Your task to perform on an android device: turn off improve location accuracy Image 0: 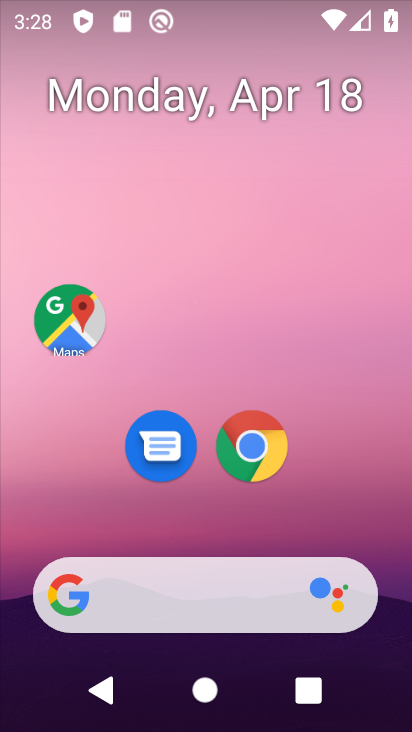
Step 0: drag from (325, 543) to (337, 152)
Your task to perform on an android device: turn off improve location accuracy Image 1: 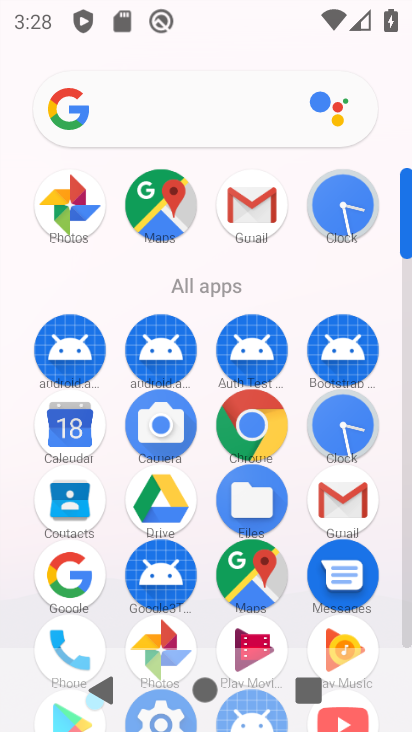
Step 1: drag from (344, 505) to (356, 112)
Your task to perform on an android device: turn off improve location accuracy Image 2: 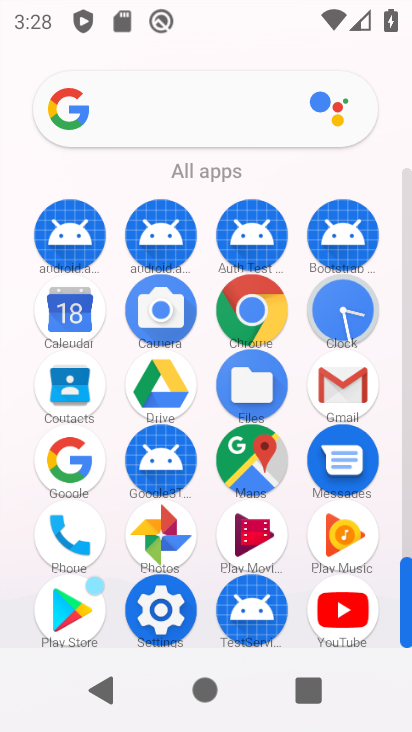
Step 2: click (169, 585)
Your task to perform on an android device: turn off improve location accuracy Image 3: 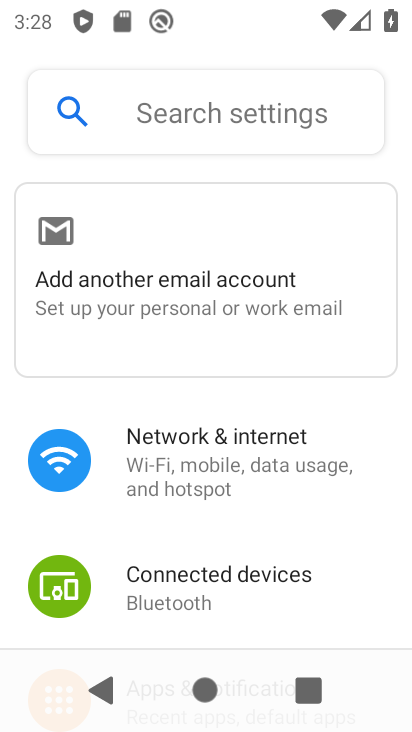
Step 3: drag from (272, 600) to (354, 141)
Your task to perform on an android device: turn off improve location accuracy Image 4: 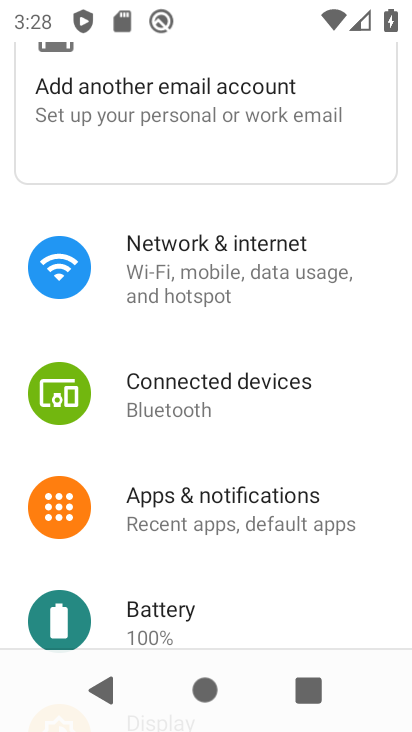
Step 4: drag from (368, 609) to (409, 178)
Your task to perform on an android device: turn off improve location accuracy Image 5: 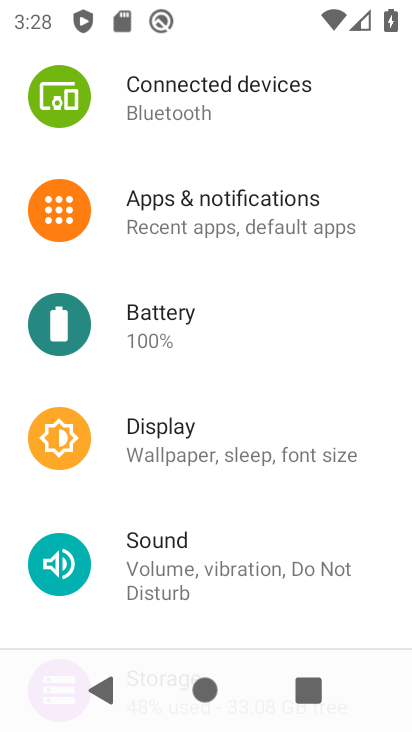
Step 5: drag from (355, 622) to (369, 236)
Your task to perform on an android device: turn off improve location accuracy Image 6: 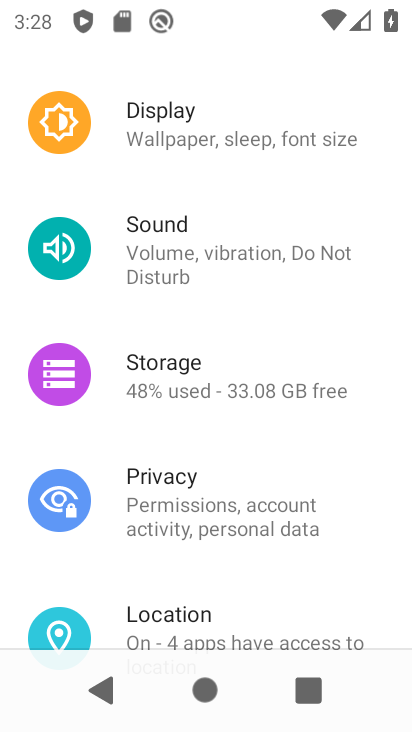
Step 6: click (272, 610)
Your task to perform on an android device: turn off improve location accuracy Image 7: 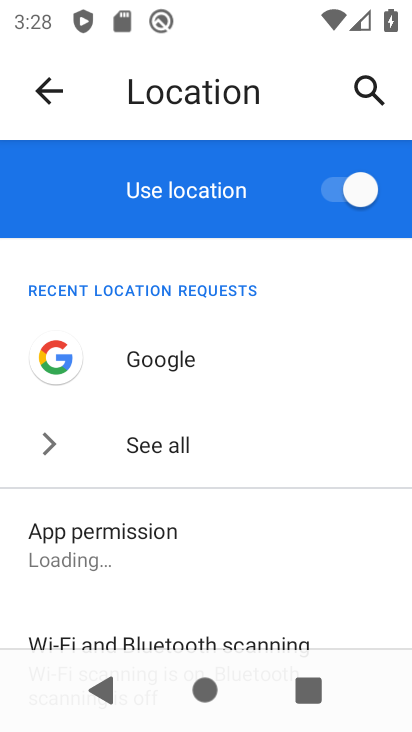
Step 7: drag from (358, 543) to (388, 103)
Your task to perform on an android device: turn off improve location accuracy Image 8: 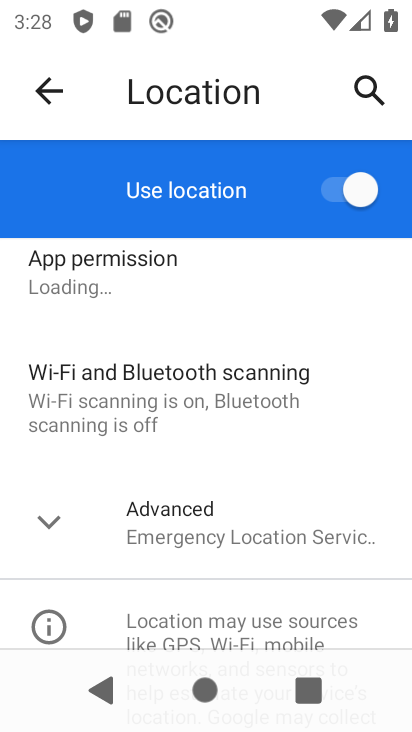
Step 8: click (285, 485)
Your task to perform on an android device: turn off improve location accuracy Image 9: 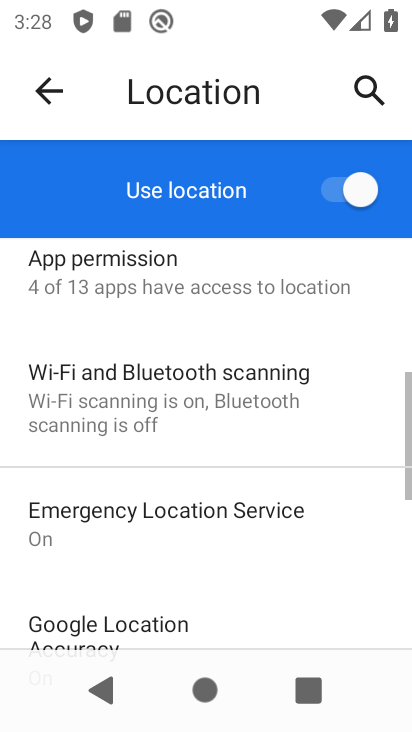
Step 9: drag from (354, 596) to (390, 269)
Your task to perform on an android device: turn off improve location accuracy Image 10: 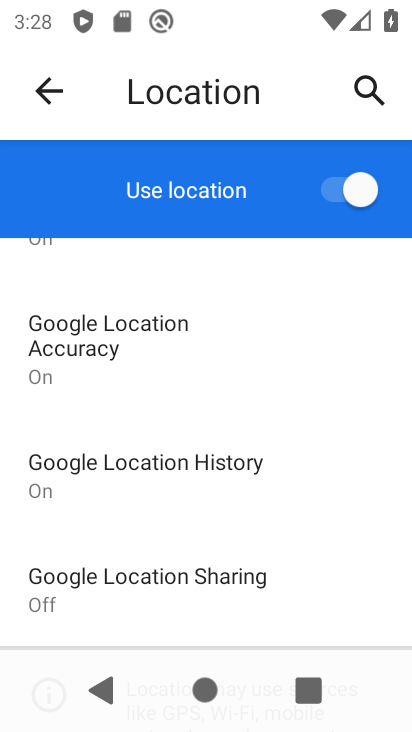
Step 10: click (205, 336)
Your task to perform on an android device: turn off improve location accuracy Image 11: 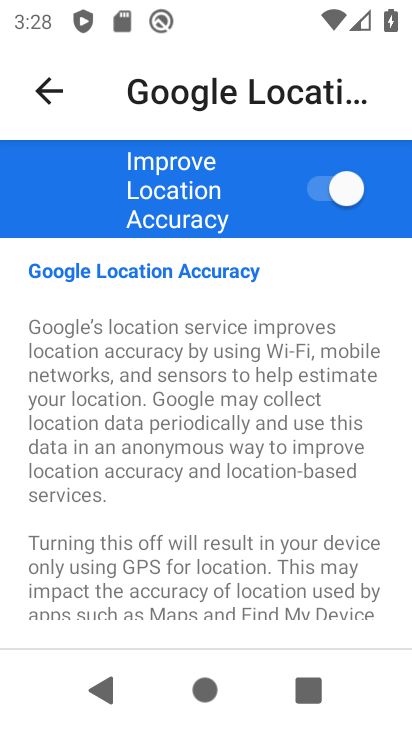
Step 11: click (358, 185)
Your task to perform on an android device: turn off improve location accuracy Image 12: 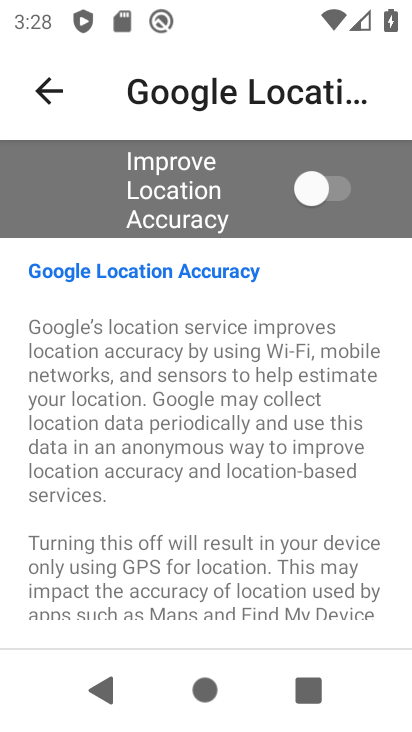
Step 12: task complete